Your task to perform on an android device: open a bookmark in the chrome app Image 0: 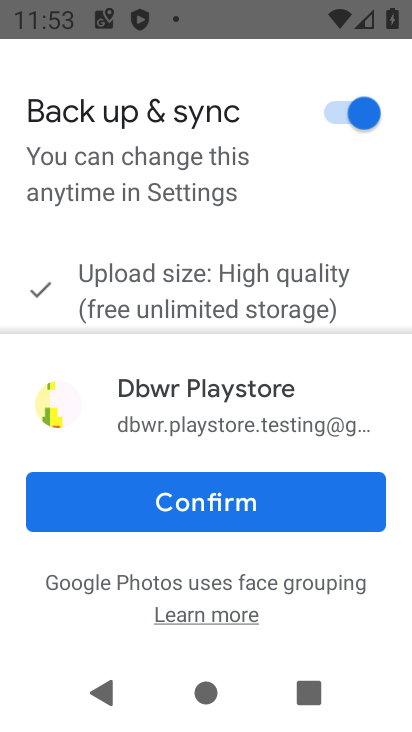
Step 0: press home button
Your task to perform on an android device: open a bookmark in the chrome app Image 1: 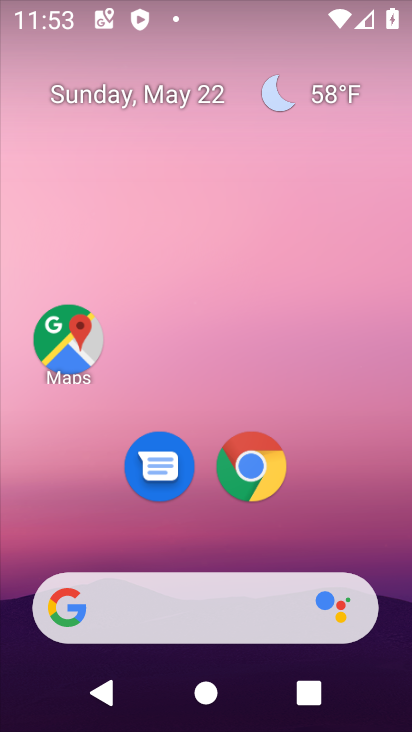
Step 1: click (251, 462)
Your task to perform on an android device: open a bookmark in the chrome app Image 2: 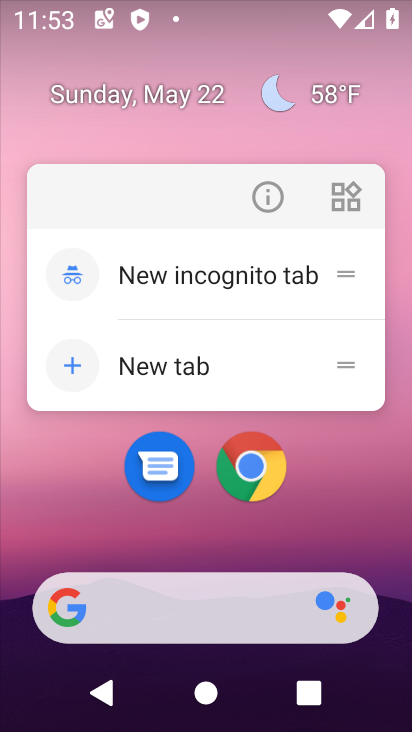
Step 2: click (251, 462)
Your task to perform on an android device: open a bookmark in the chrome app Image 3: 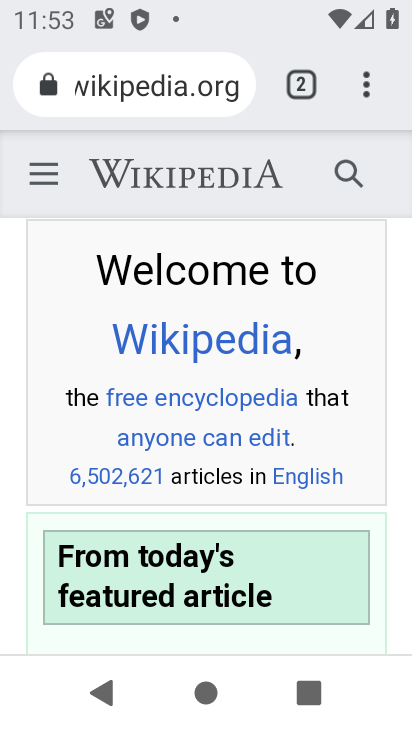
Step 3: click (358, 73)
Your task to perform on an android device: open a bookmark in the chrome app Image 4: 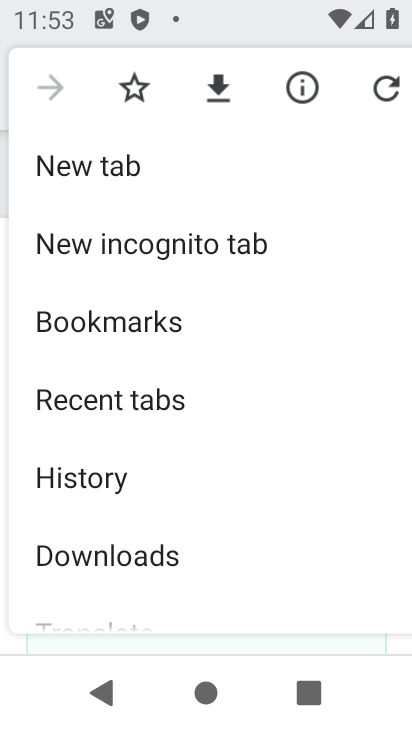
Step 4: drag from (165, 530) to (134, 230)
Your task to perform on an android device: open a bookmark in the chrome app Image 5: 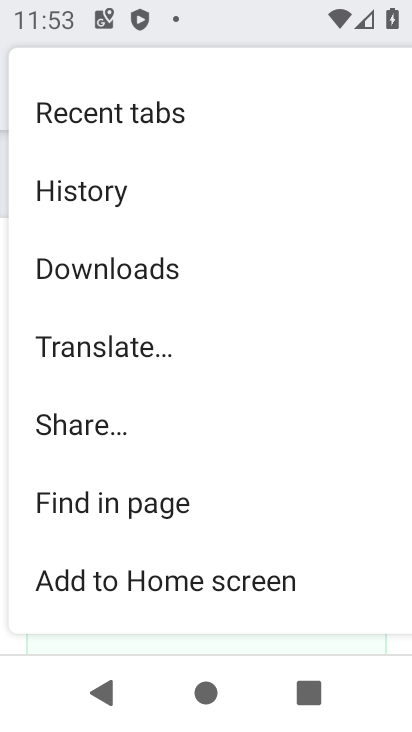
Step 5: drag from (153, 207) to (159, 437)
Your task to perform on an android device: open a bookmark in the chrome app Image 6: 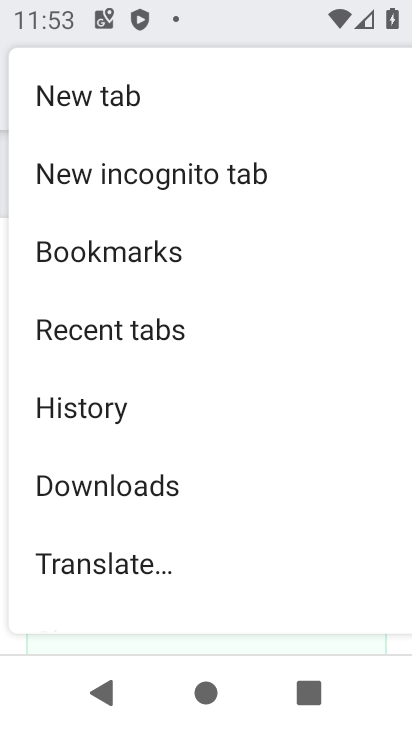
Step 6: click (136, 262)
Your task to perform on an android device: open a bookmark in the chrome app Image 7: 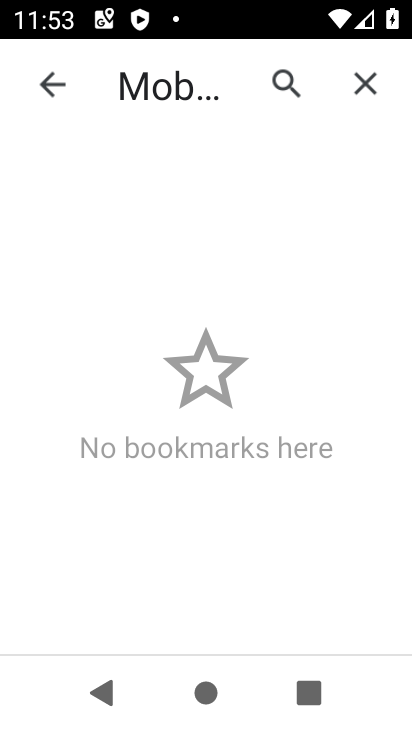
Step 7: task complete